Your task to perform on an android device: Open Google Chrome and open the bookmarks view Image 0: 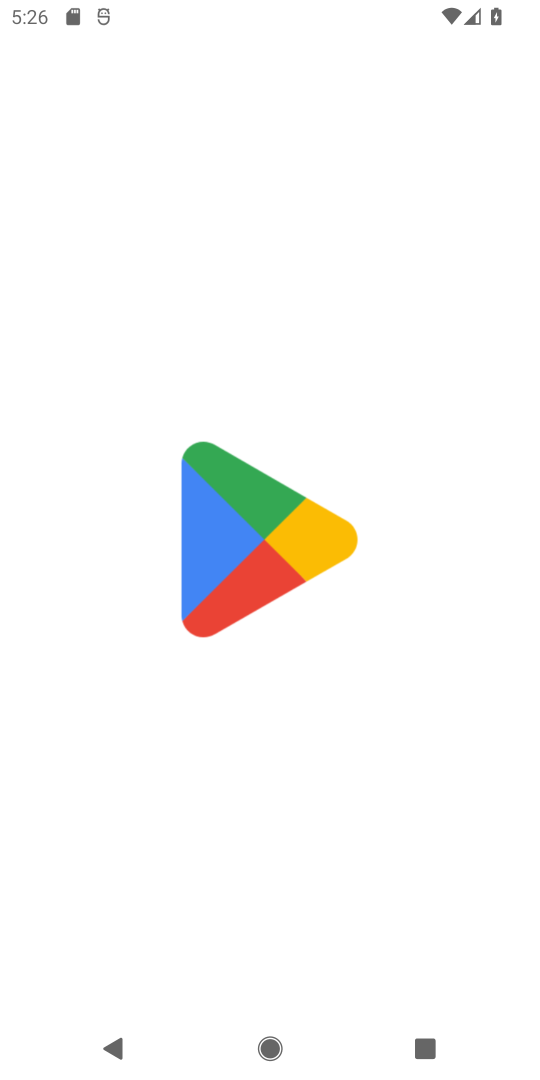
Step 0: press home button
Your task to perform on an android device: Open Google Chrome and open the bookmarks view Image 1: 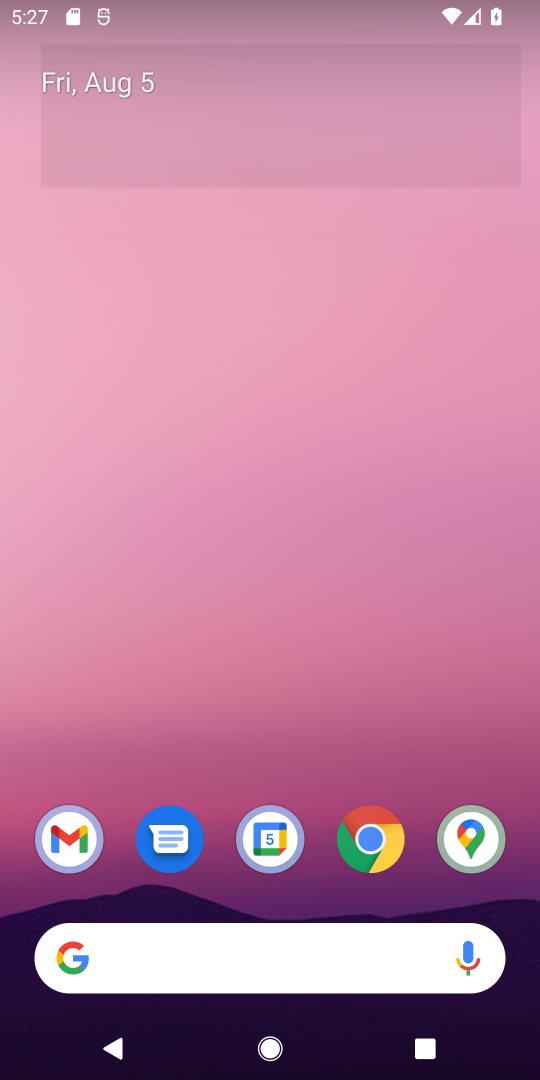
Step 1: click (368, 833)
Your task to perform on an android device: Open Google Chrome and open the bookmarks view Image 2: 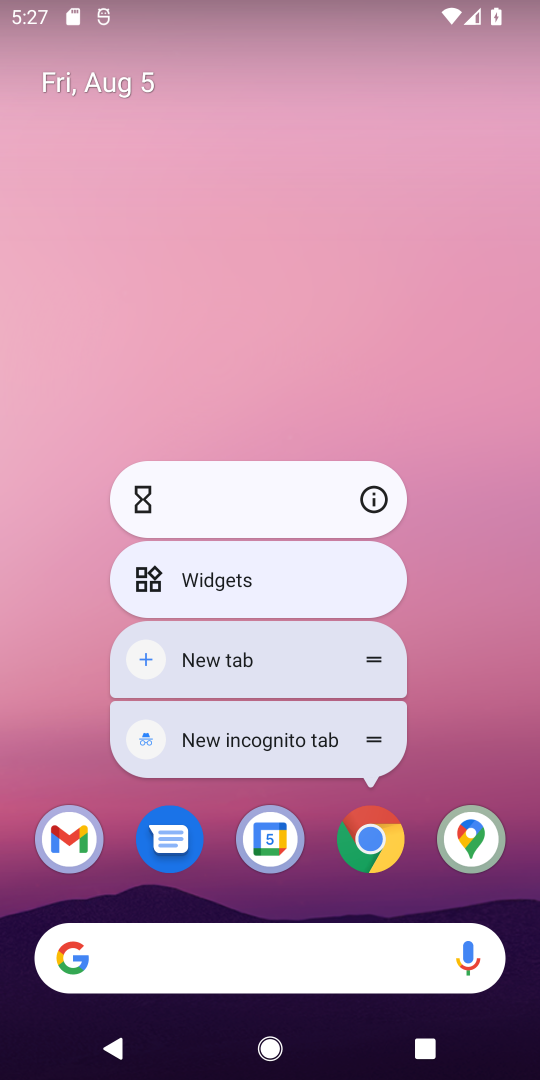
Step 2: click (367, 829)
Your task to perform on an android device: Open Google Chrome and open the bookmarks view Image 3: 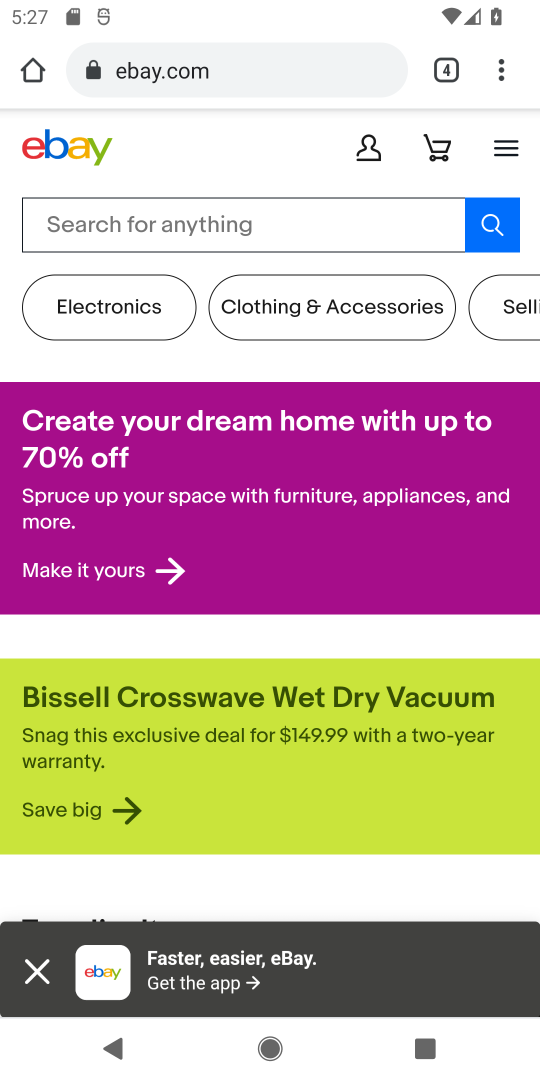
Step 3: task complete